Your task to perform on an android device: add a label to a message in the gmail app Image 0: 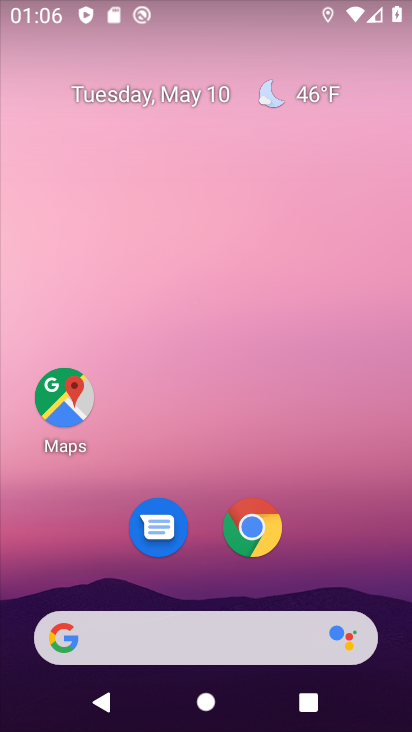
Step 0: drag from (256, 406) to (78, 162)
Your task to perform on an android device: add a label to a message in the gmail app Image 1: 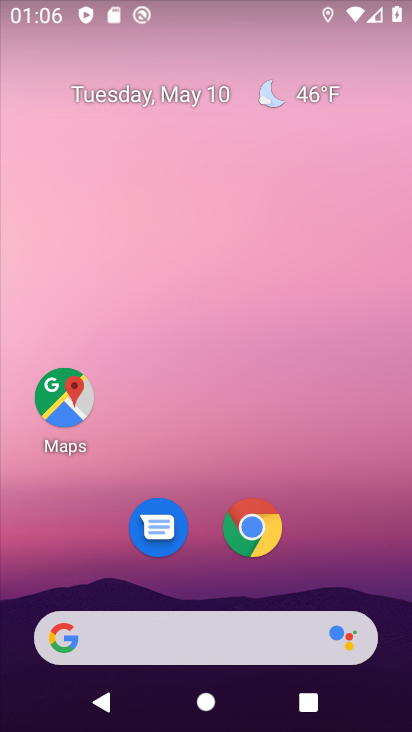
Step 1: drag from (318, 508) to (339, 54)
Your task to perform on an android device: add a label to a message in the gmail app Image 2: 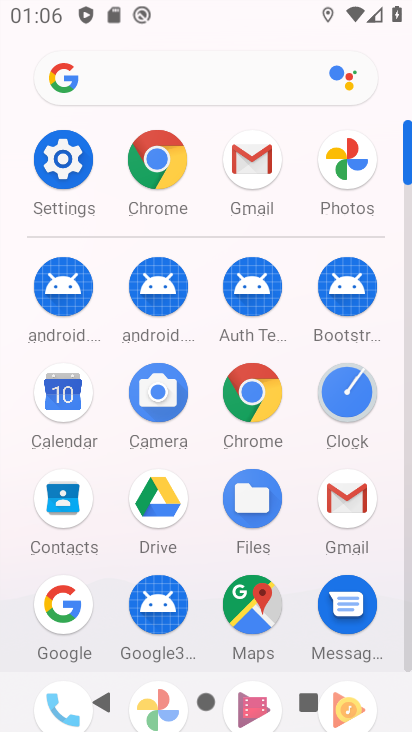
Step 2: click (246, 167)
Your task to perform on an android device: add a label to a message in the gmail app Image 3: 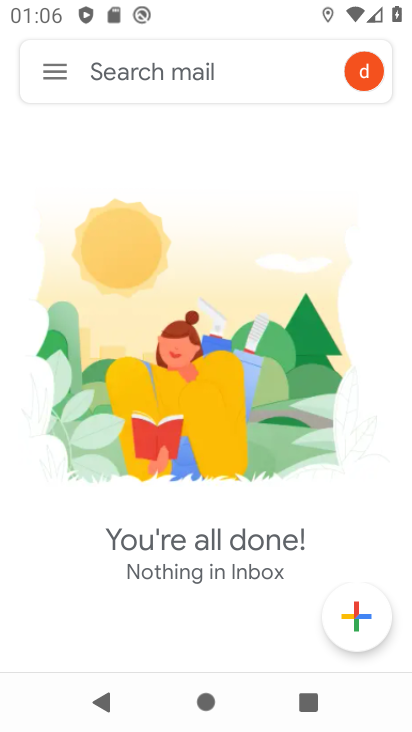
Step 3: click (353, 73)
Your task to perform on an android device: add a label to a message in the gmail app Image 4: 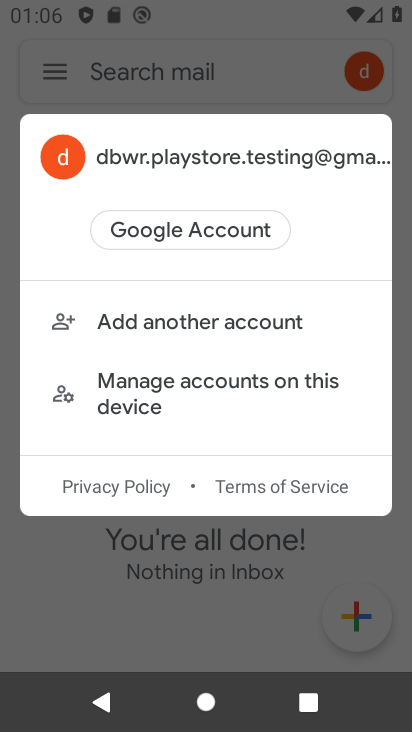
Step 4: click (211, 556)
Your task to perform on an android device: add a label to a message in the gmail app Image 5: 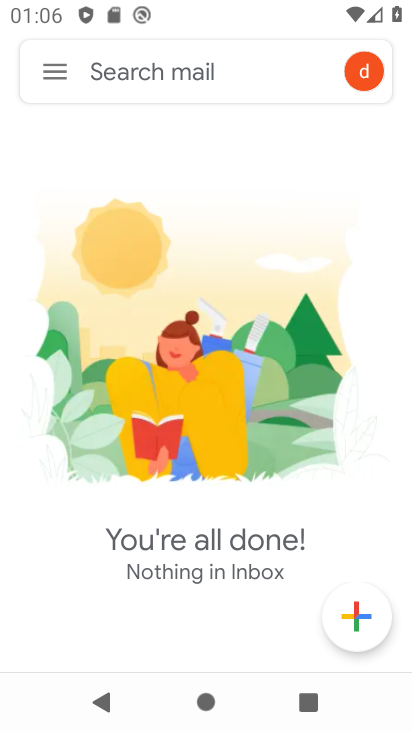
Step 5: click (67, 74)
Your task to perform on an android device: add a label to a message in the gmail app Image 6: 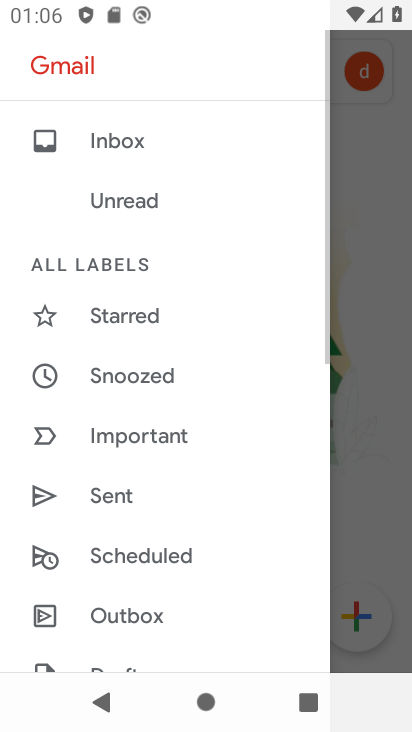
Step 6: drag from (176, 521) to (173, 153)
Your task to perform on an android device: add a label to a message in the gmail app Image 7: 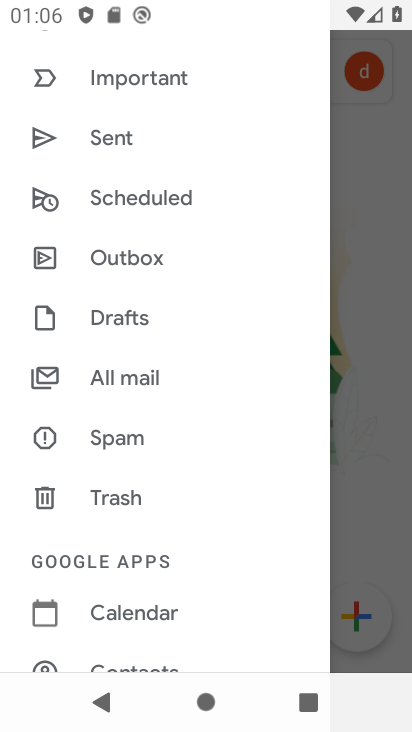
Step 7: drag from (181, 576) to (208, 680)
Your task to perform on an android device: add a label to a message in the gmail app Image 8: 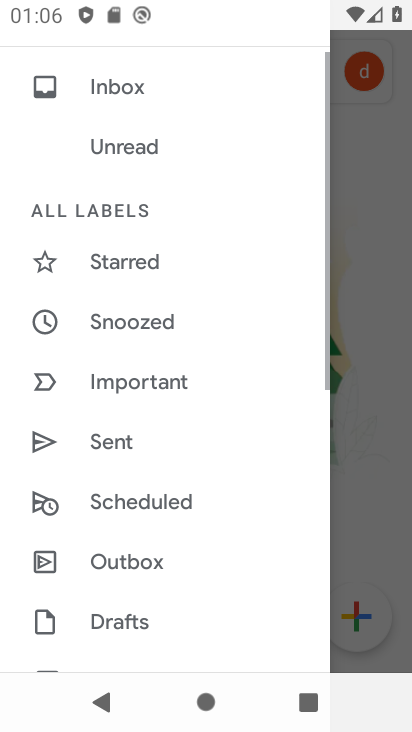
Step 8: drag from (191, 205) to (181, 415)
Your task to perform on an android device: add a label to a message in the gmail app Image 9: 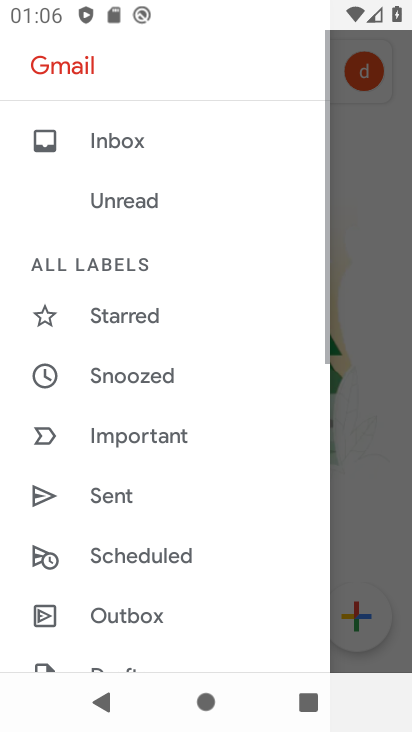
Step 9: click (370, 312)
Your task to perform on an android device: add a label to a message in the gmail app Image 10: 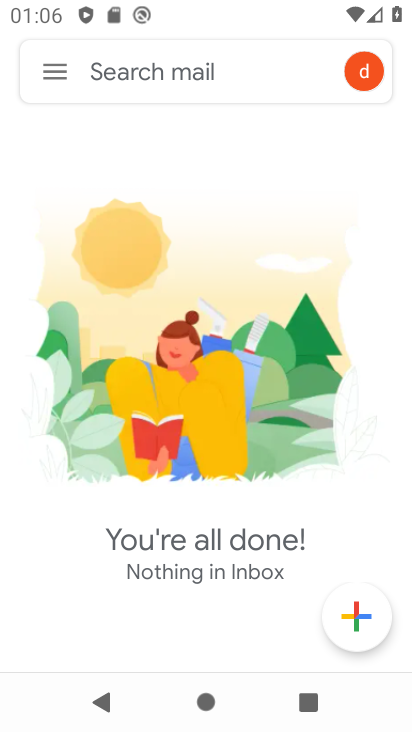
Step 10: task complete